Your task to perform on an android device: install app "Adobe Express: Graphic Design" Image 0: 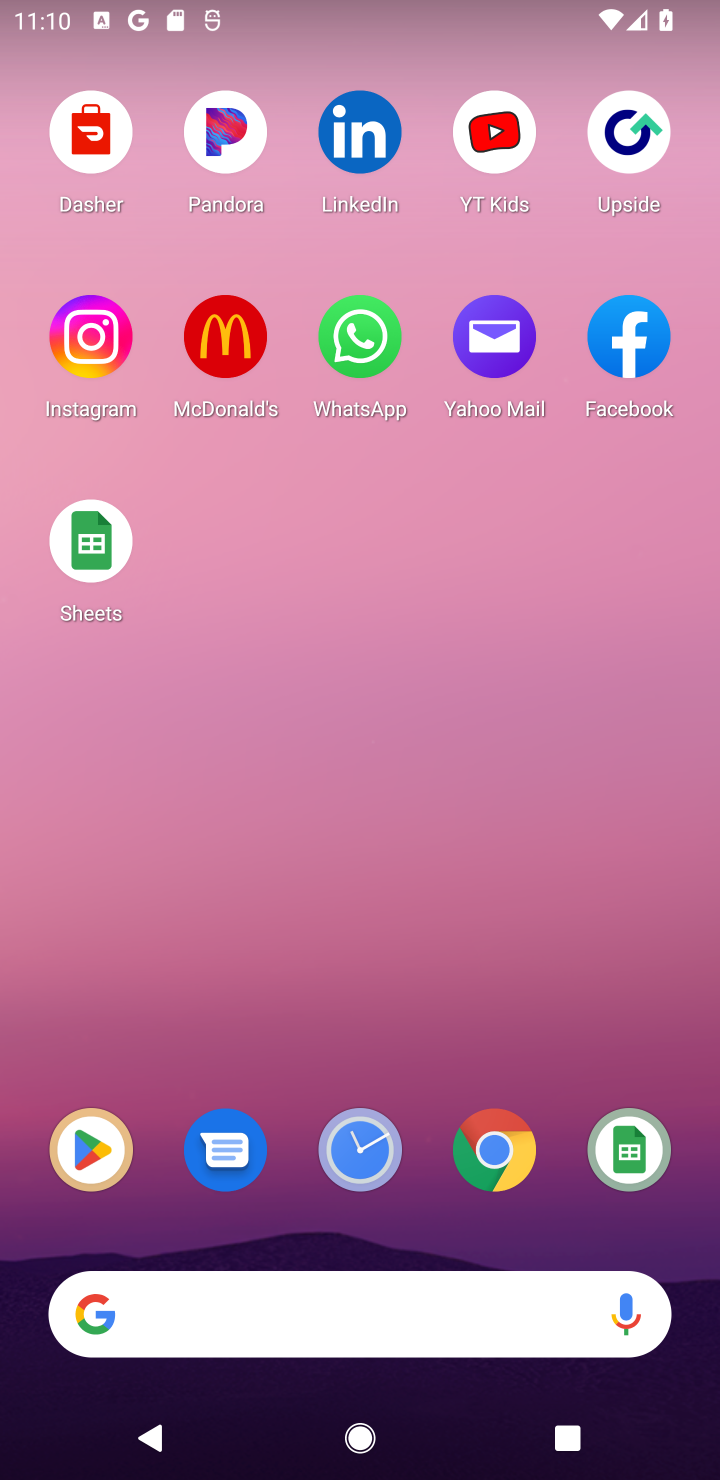
Step 0: click (76, 1170)
Your task to perform on an android device: install app "Adobe Express: Graphic Design" Image 1: 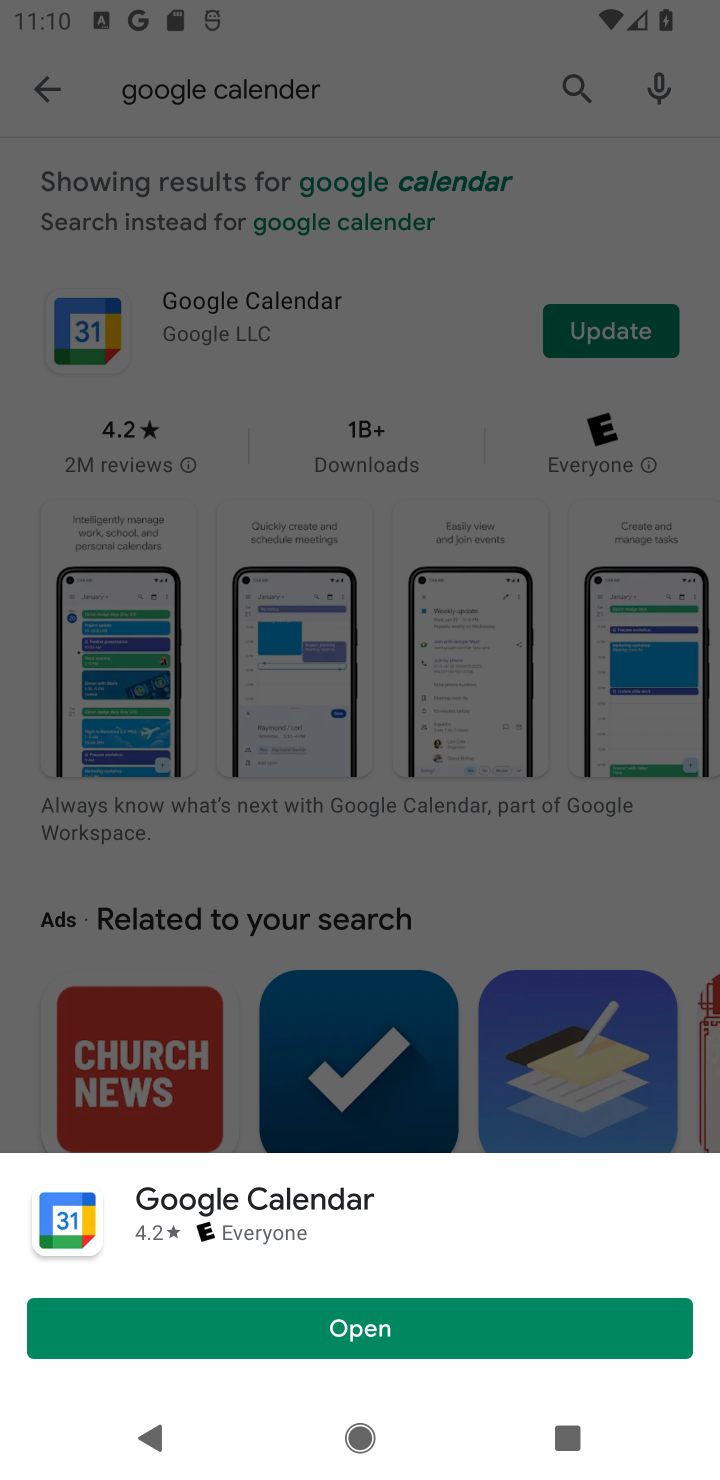
Step 1: click (453, 591)
Your task to perform on an android device: install app "Adobe Express: Graphic Design" Image 2: 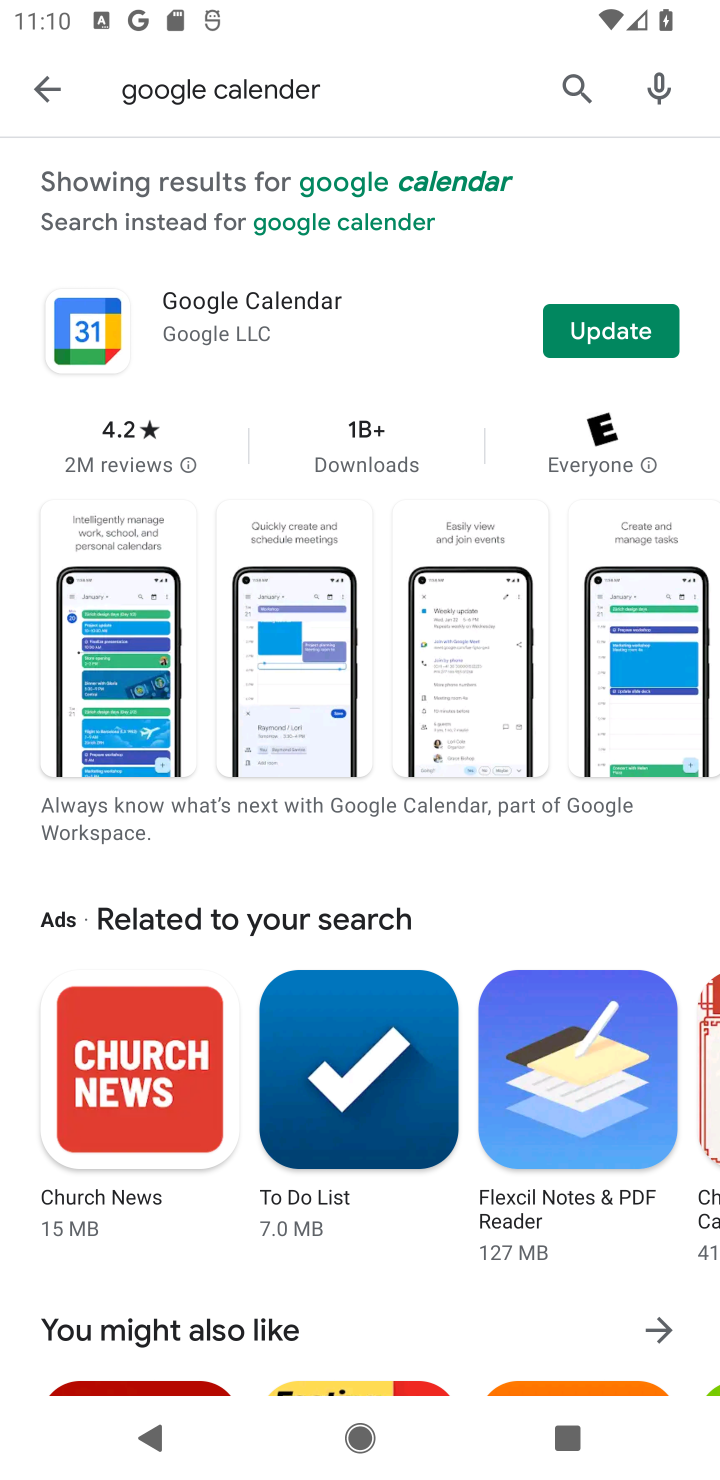
Step 2: click (75, 88)
Your task to perform on an android device: install app "Adobe Express: Graphic Design" Image 3: 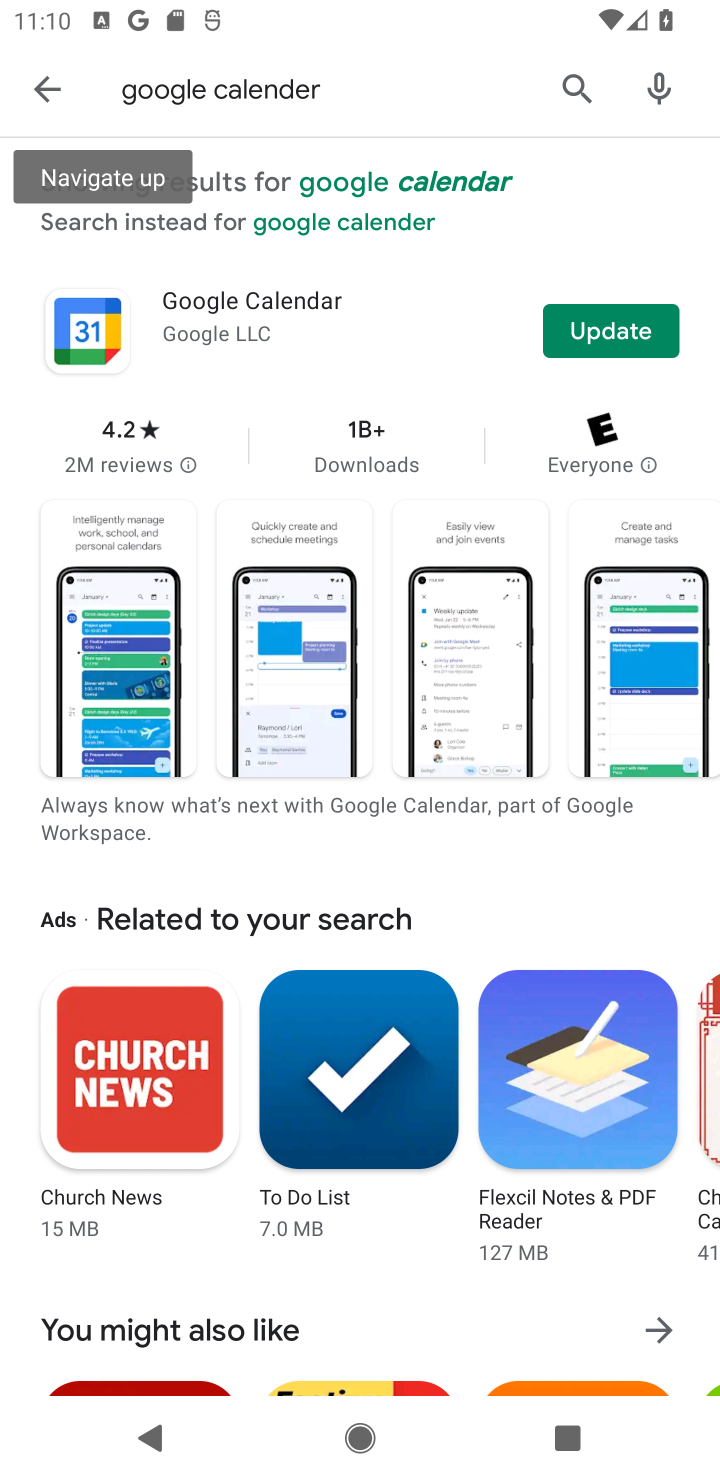
Step 3: click (30, 88)
Your task to perform on an android device: install app "Adobe Express: Graphic Design" Image 4: 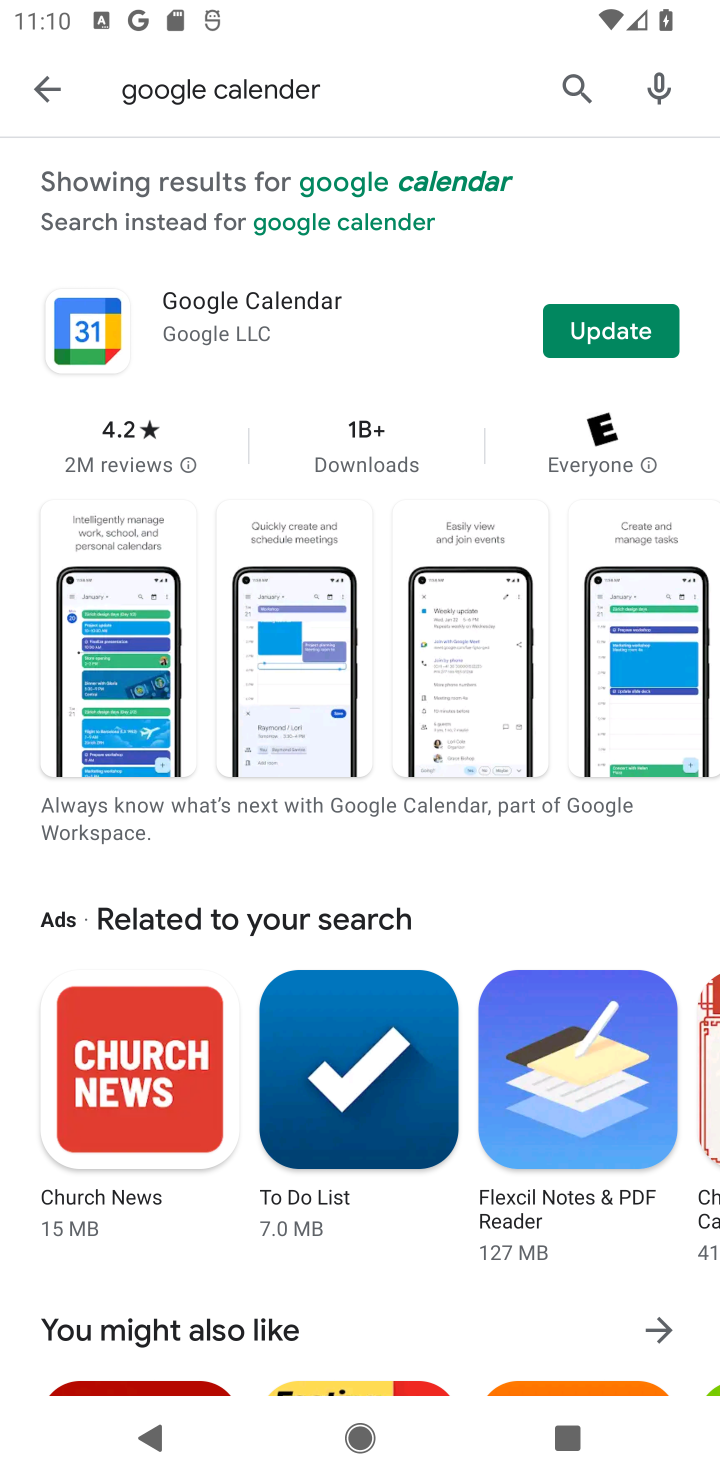
Step 4: click (619, 88)
Your task to perform on an android device: install app "Adobe Express: Graphic Design" Image 5: 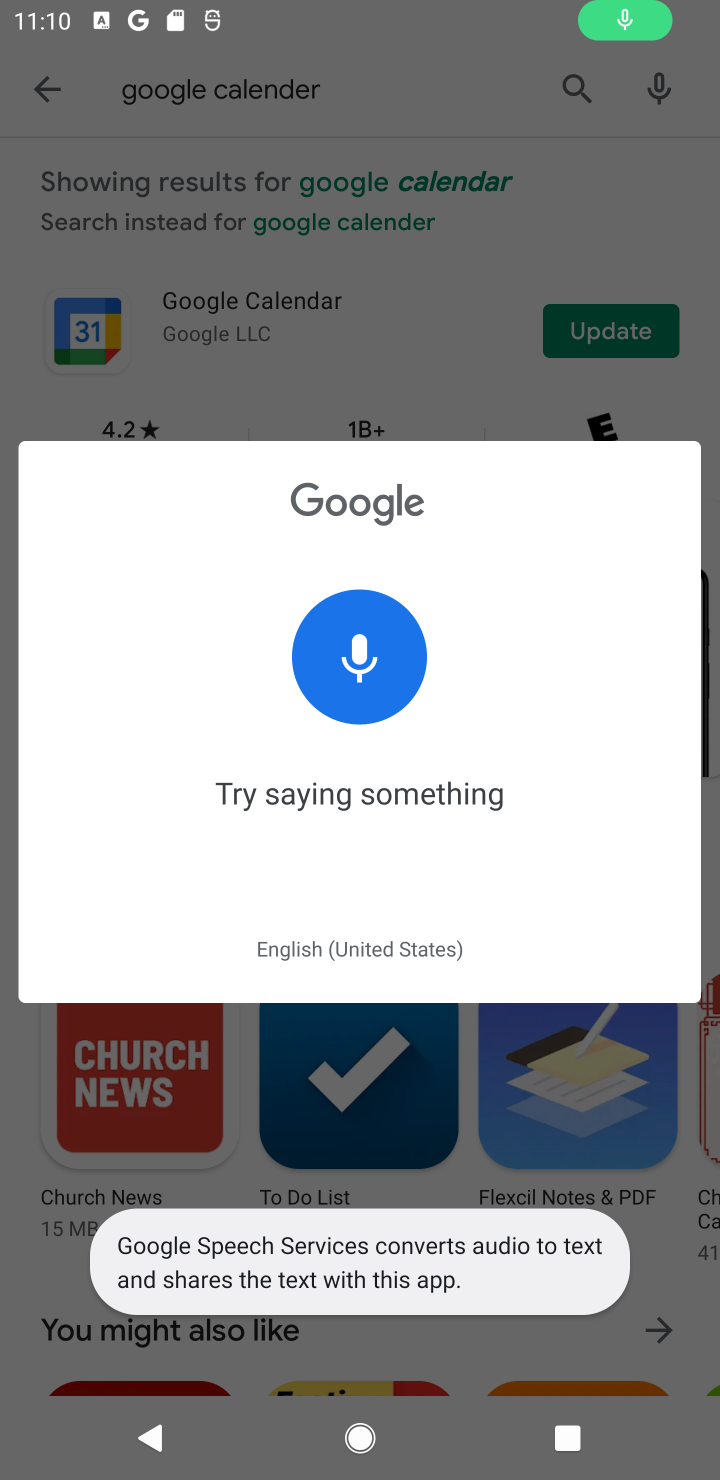
Step 5: click (577, 82)
Your task to perform on an android device: install app "Adobe Express: Graphic Design" Image 6: 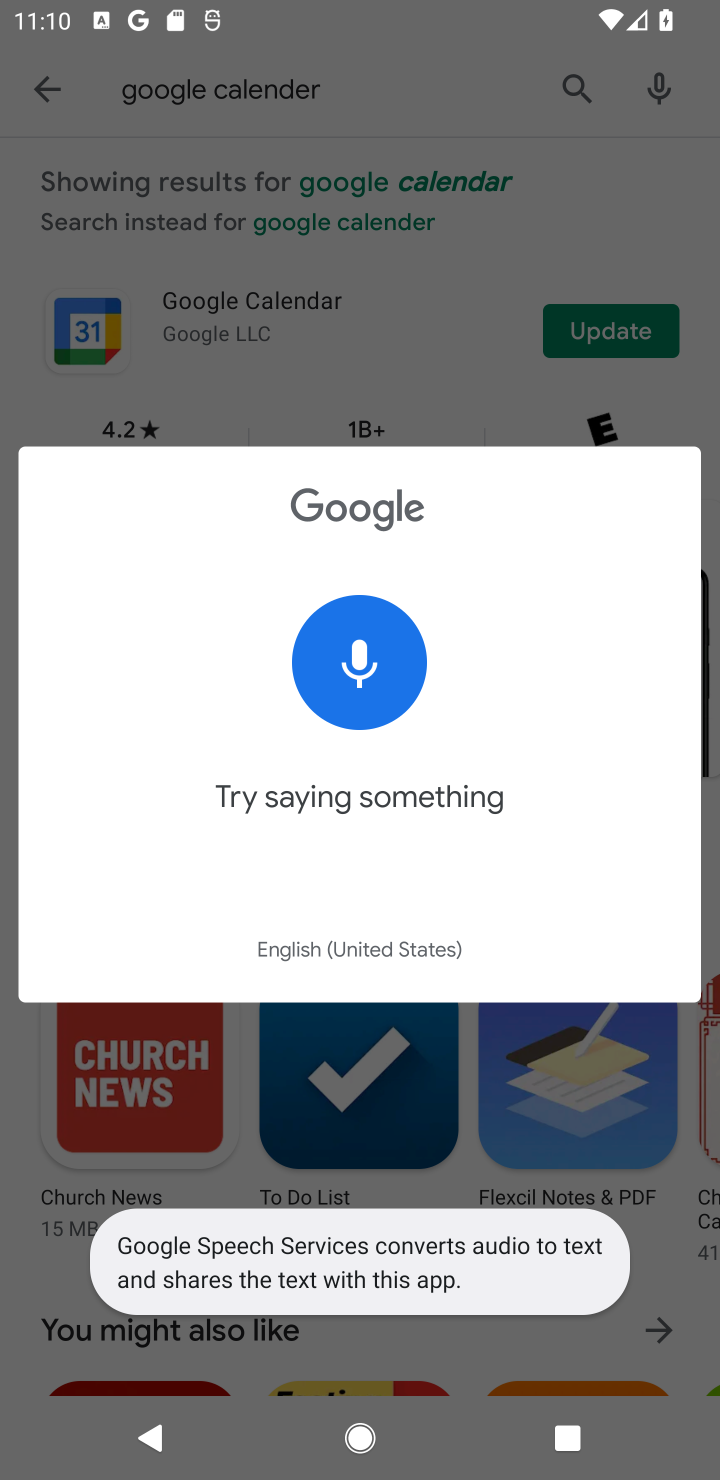
Step 6: click (398, 234)
Your task to perform on an android device: install app "Adobe Express: Graphic Design" Image 7: 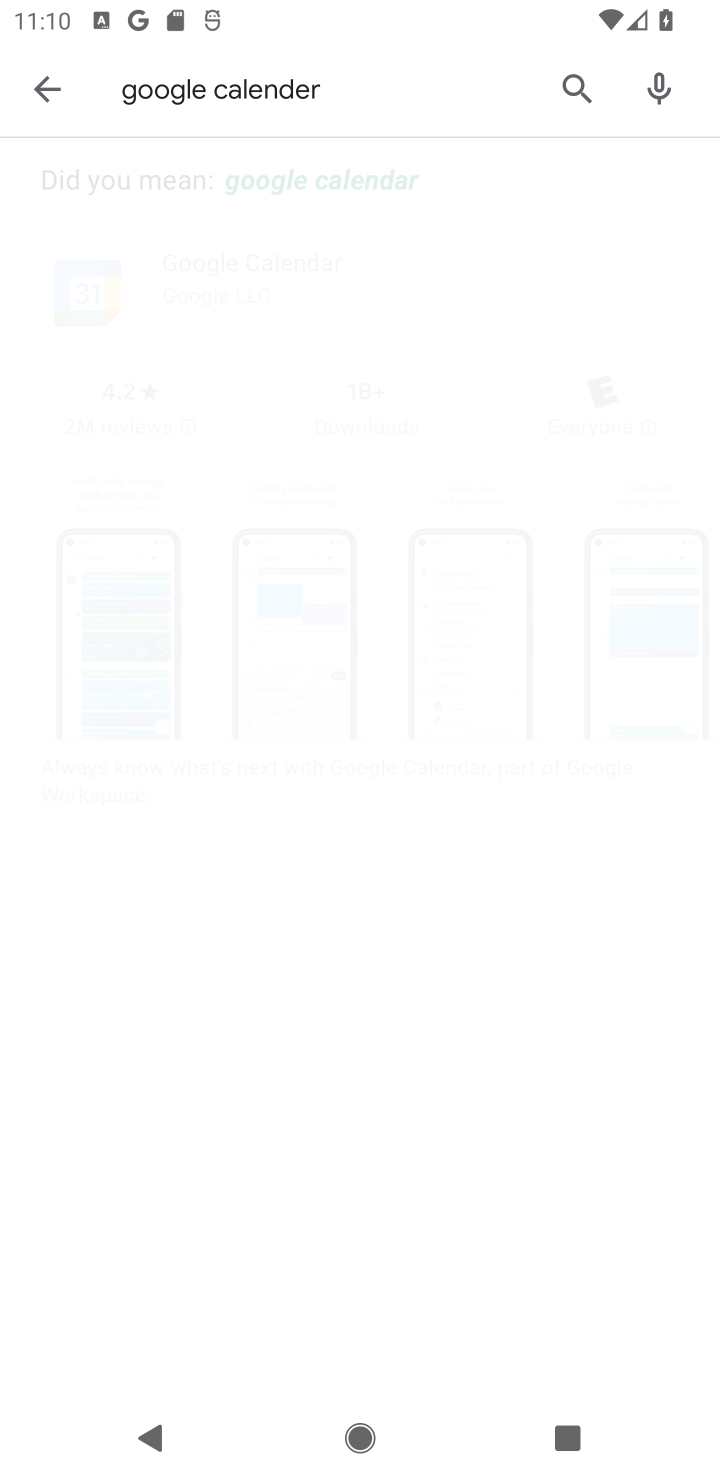
Step 7: click (571, 88)
Your task to perform on an android device: install app "Adobe Express: Graphic Design" Image 8: 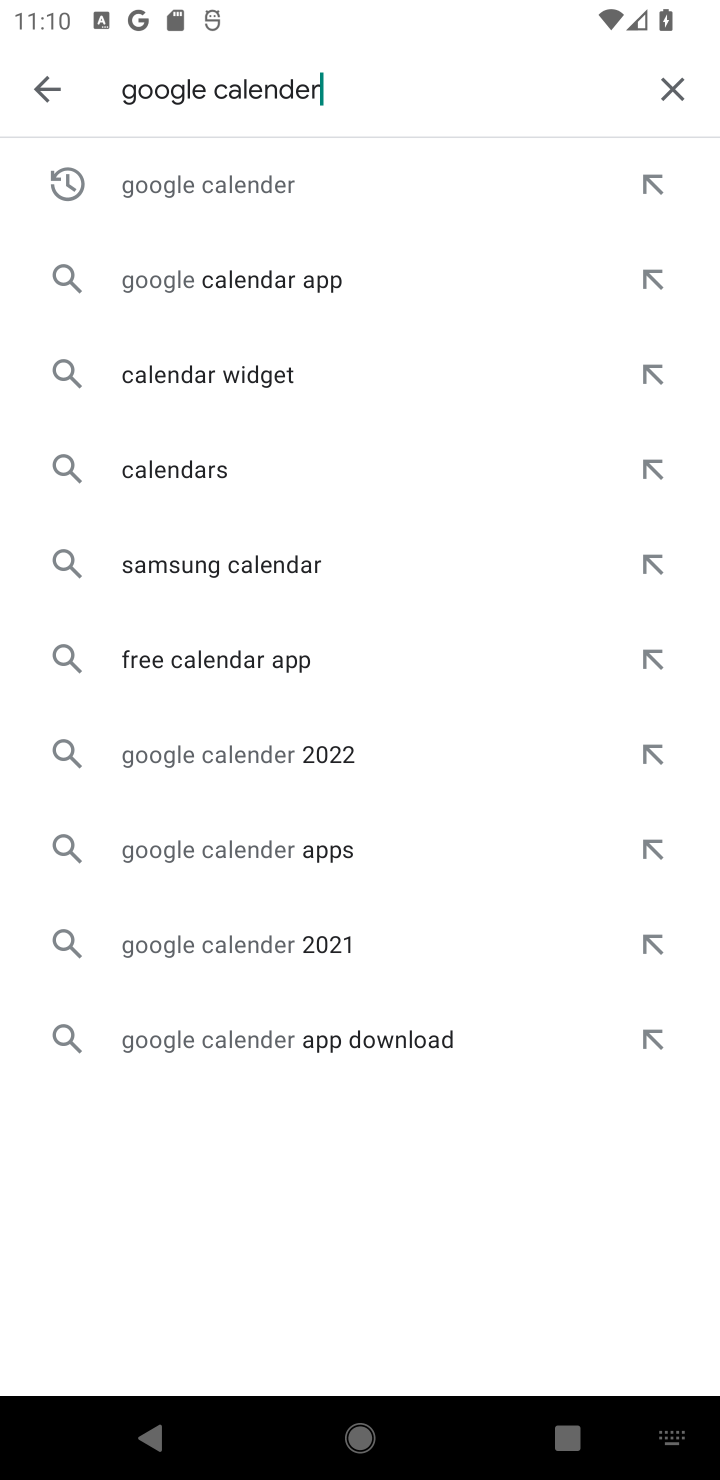
Step 8: click (665, 88)
Your task to perform on an android device: install app "Adobe Express: Graphic Design" Image 9: 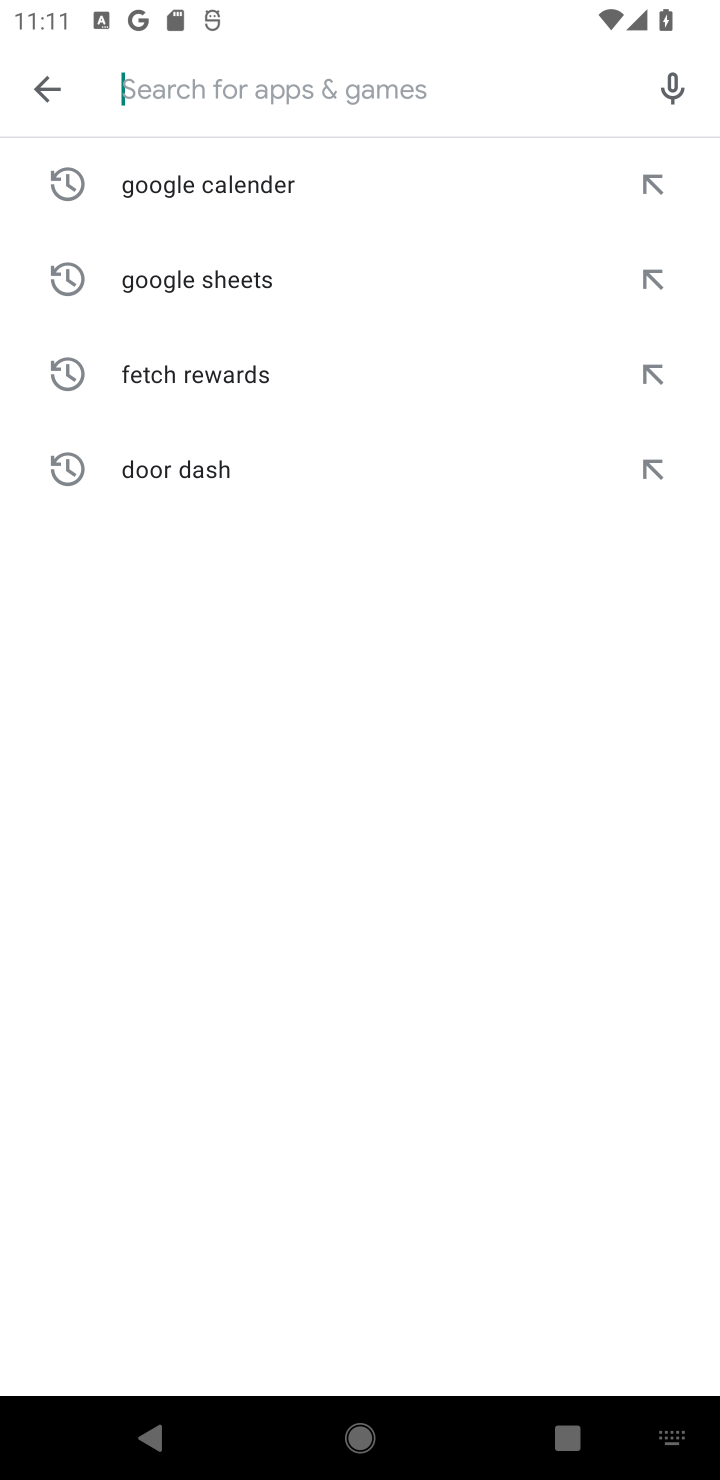
Step 9: type "adobe express"
Your task to perform on an android device: install app "Adobe Express: Graphic Design" Image 10: 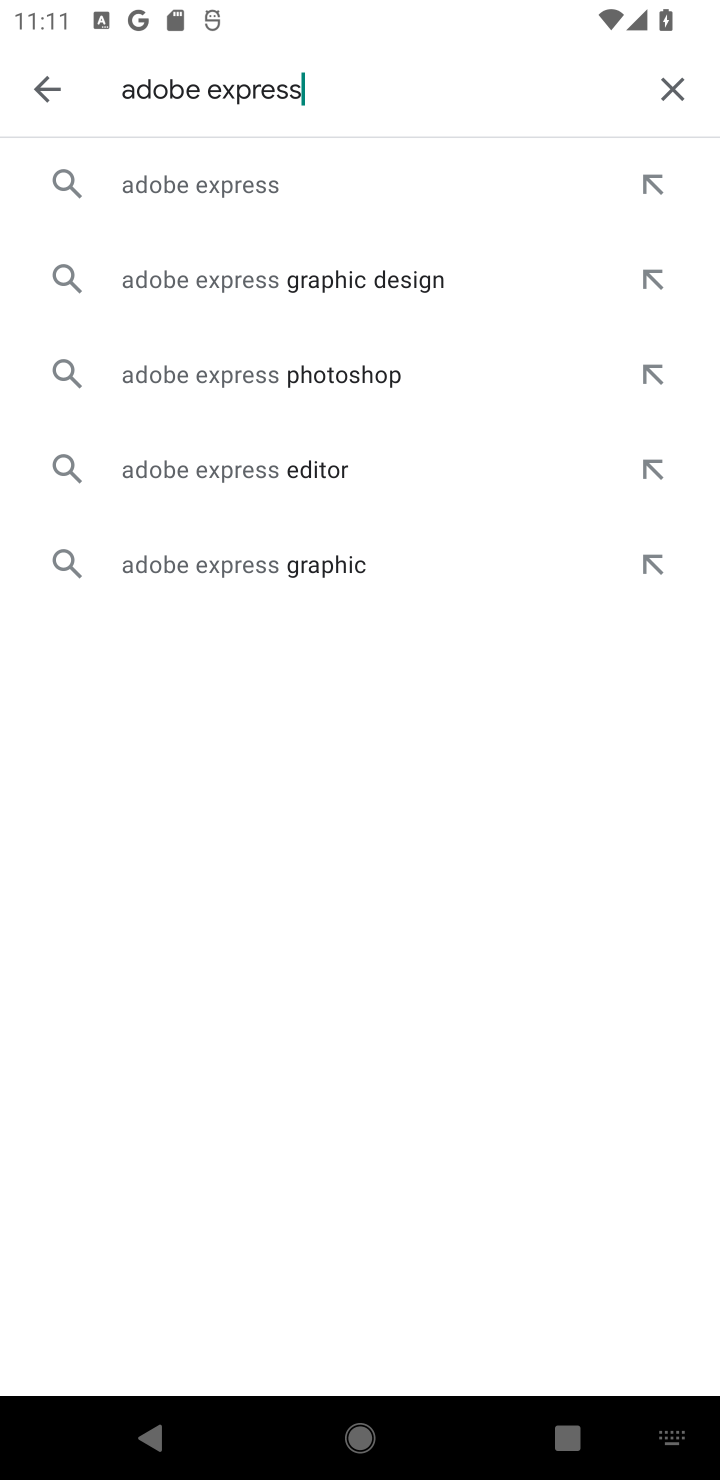
Step 10: click (275, 310)
Your task to perform on an android device: install app "Adobe Express: Graphic Design" Image 11: 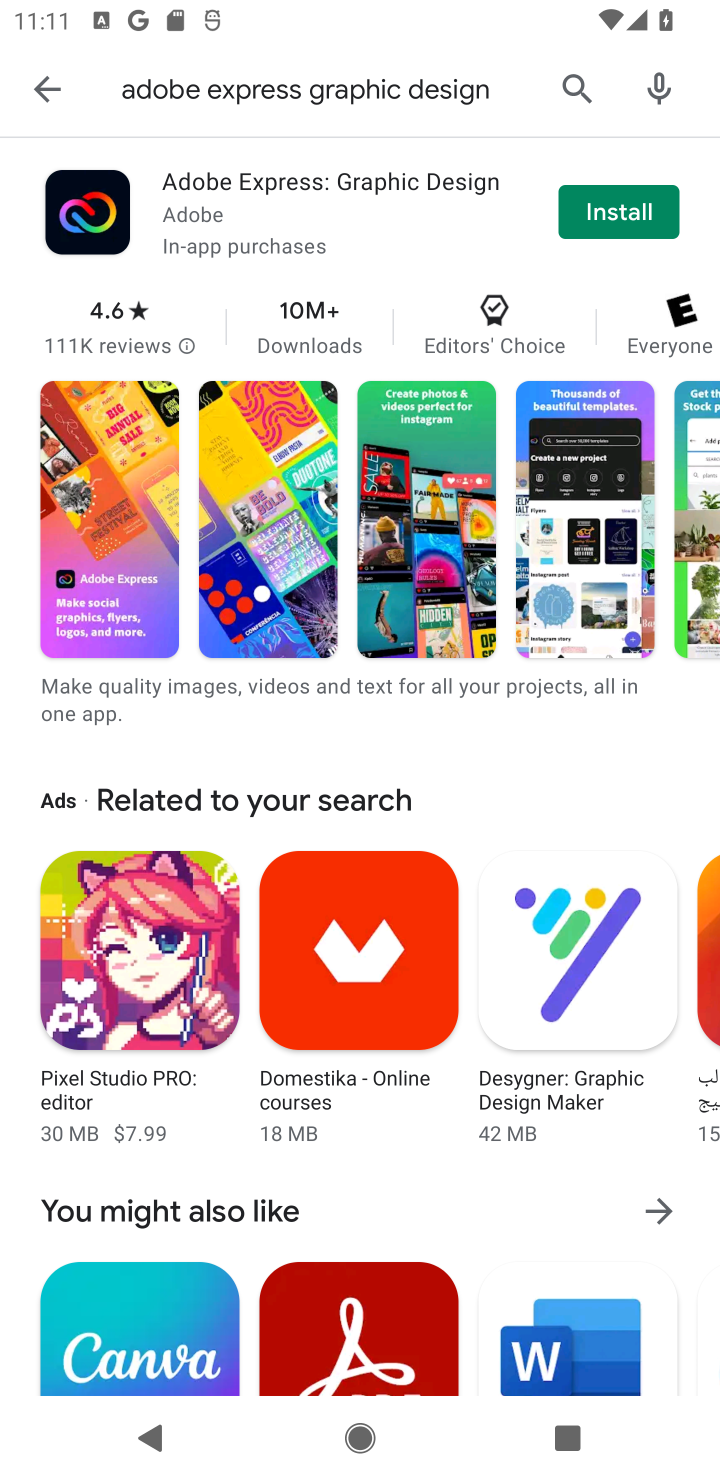
Step 11: click (616, 209)
Your task to perform on an android device: install app "Adobe Express: Graphic Design" Image 12: 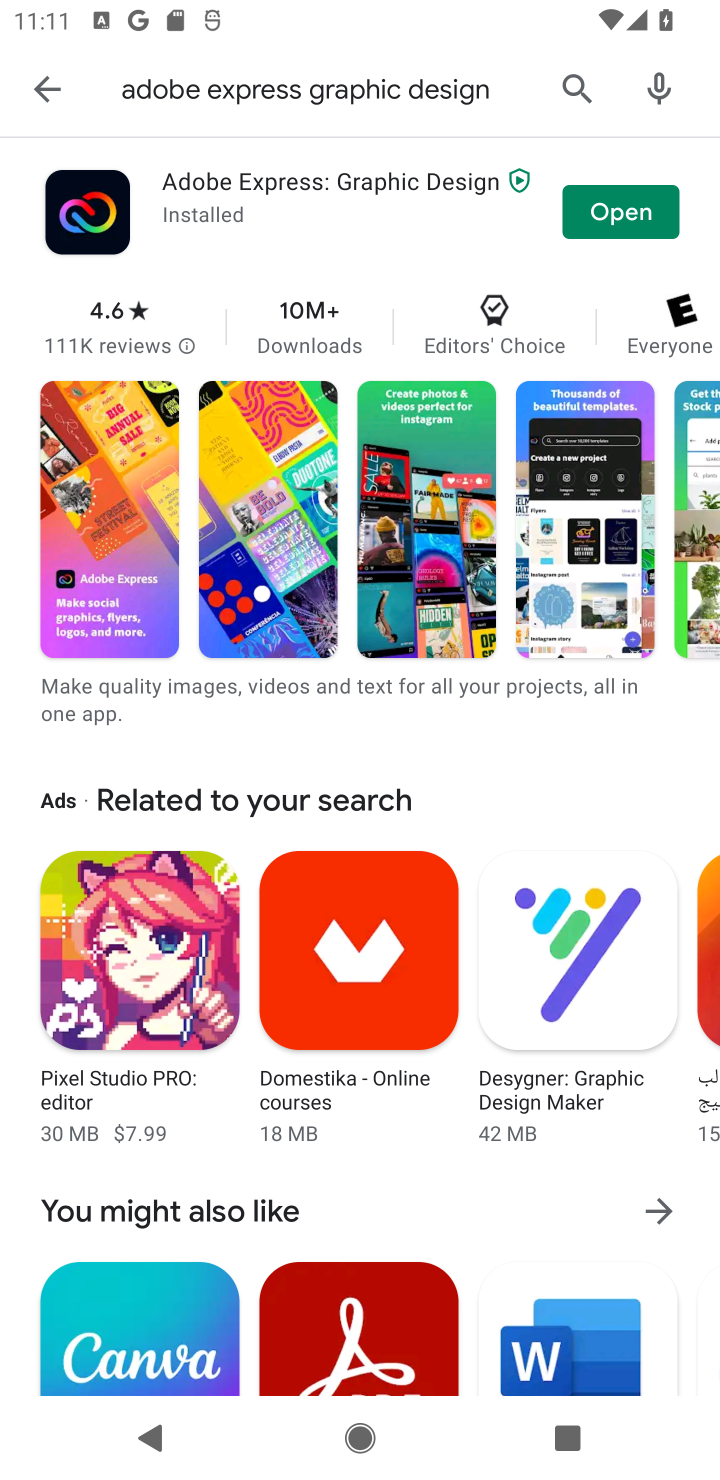
Step 12: task complete